Your task to perform on an android device: Go to sound settings Image 0: 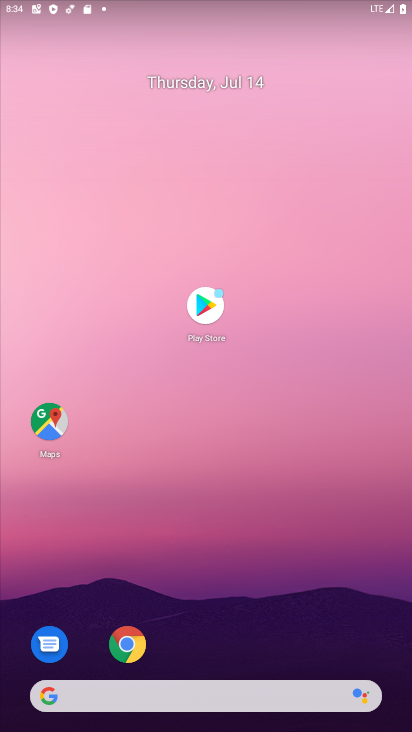
Step 0: drag from (204, 642) to (229, 147)
Your task to perform on an android device: Go to sound settings Image 1: 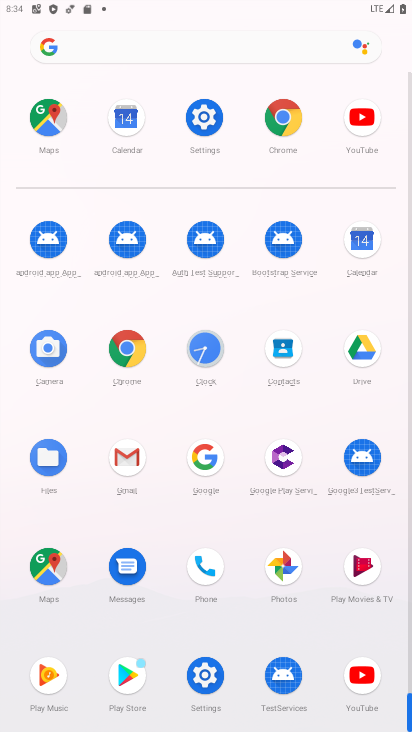
Step 1: click (204, 126)
Your task to perform on an android device: Go to sound settings Image 2: 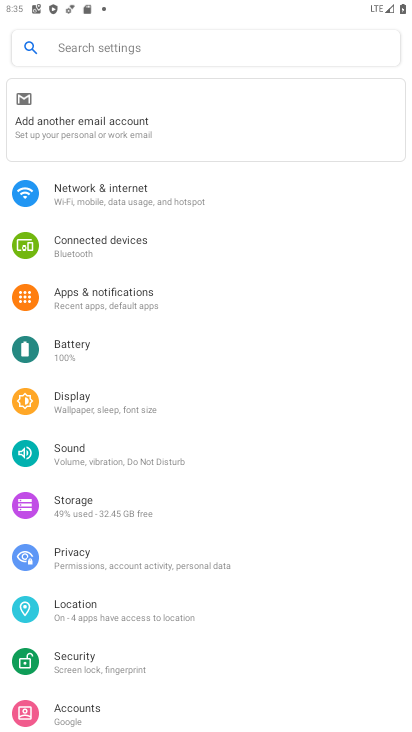
Step 2: drag from (149, 562) to (192, 346)
Your task to perform on an android device: Go to sound settings Image 3: 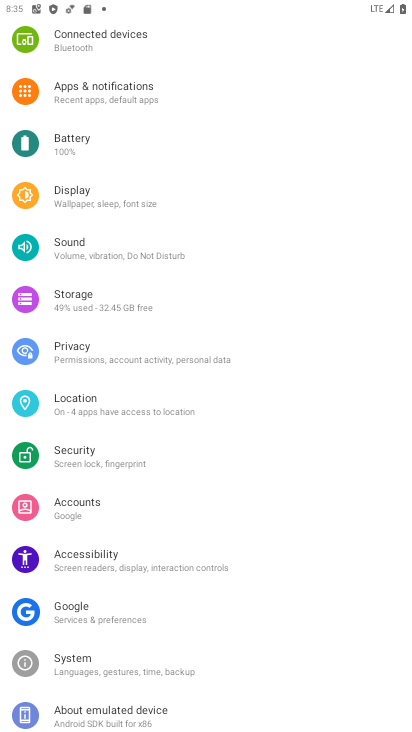
Step 3: click (119, 241)
Your task to perform on an android device: Go to sound settings Image 4: 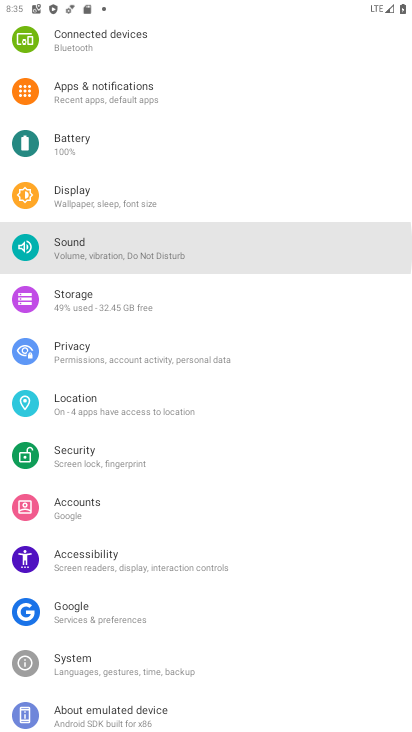
Step 4: click (119, 247)
Your task to perform on an android device: Go to sound settings Image 5: 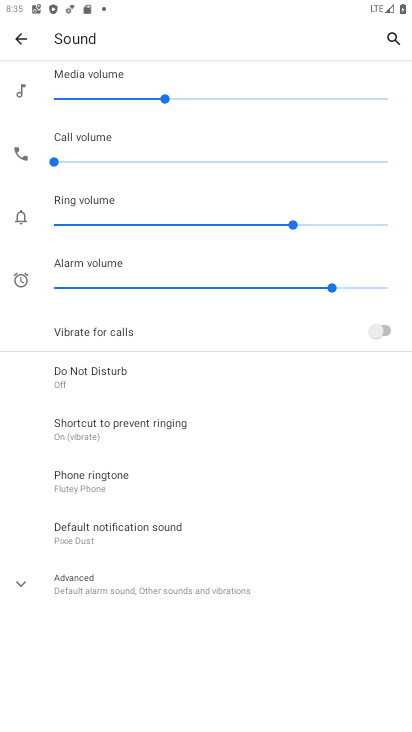
Step 5: task complete